Your task to perform on an android device: find photos in the google photos app Image 0: 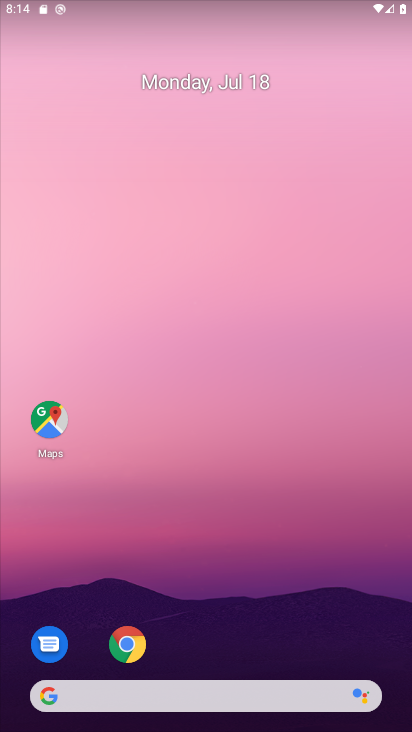
Step 0: drag from (203, 660) to (200, 112)
Your task to perform on an android device: find photos in the google photos app Image 1: 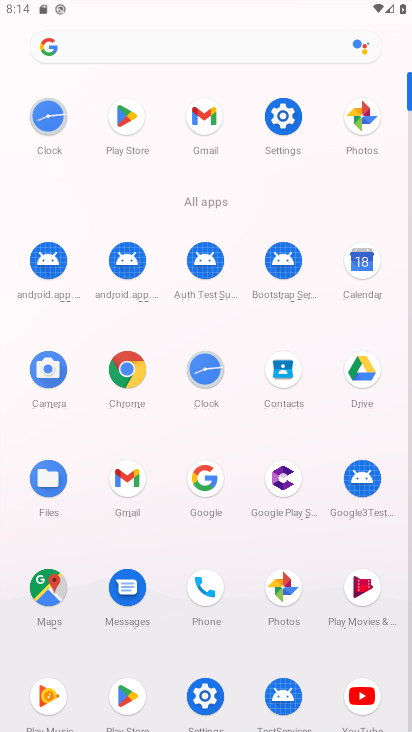
Step 1: click (349, 127)
Your task to perform on an android device: find photos in the google photos app Image 2: 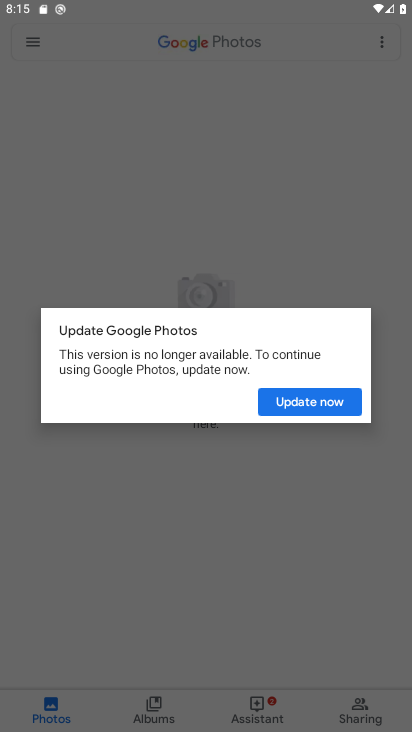
Step 2: click (295, 413)
Your task to perform on an android device: find photos in the google photos app Image 3: 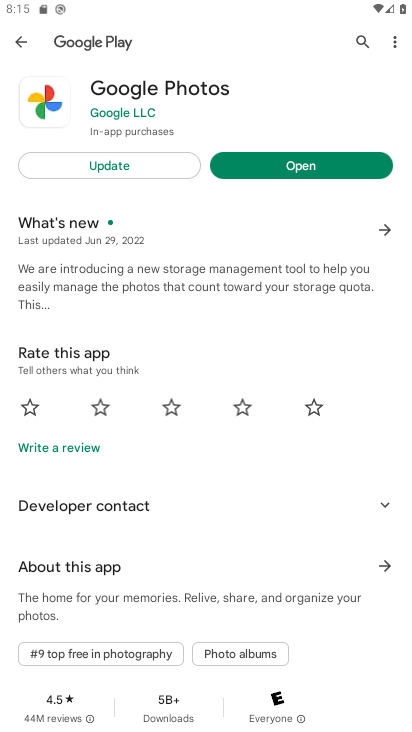
Step 3: click (151, 164)
Your task to perform on an android device: find photos in the google photos app Image 4: 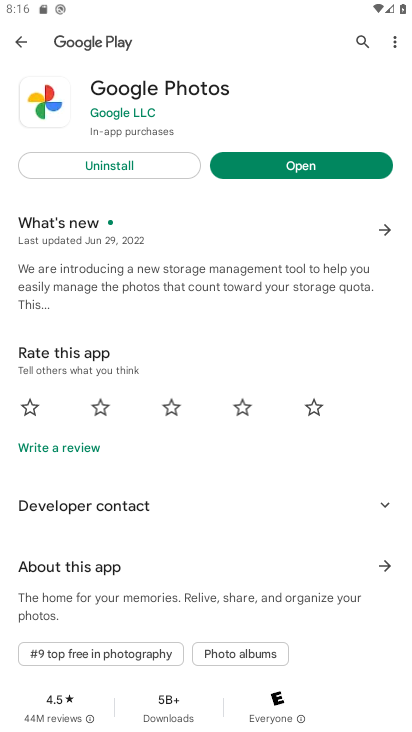
Step 4: click (312, 180)
Your task to perform on an android device: find photos in the google photos app Image 5: 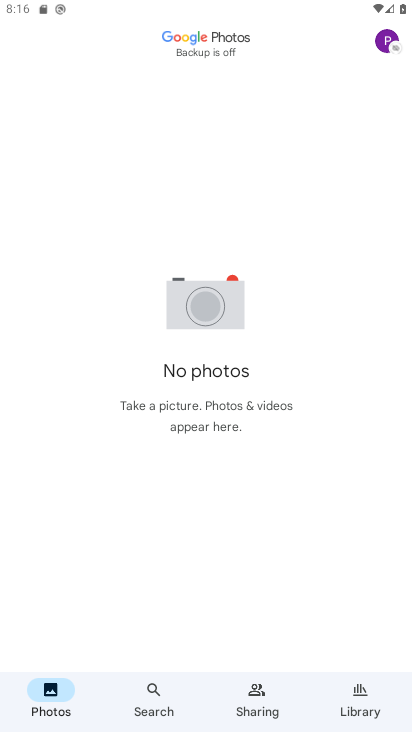
Step 5: task complete